Your task to perform on an android device: Go to battery settings Image 0: 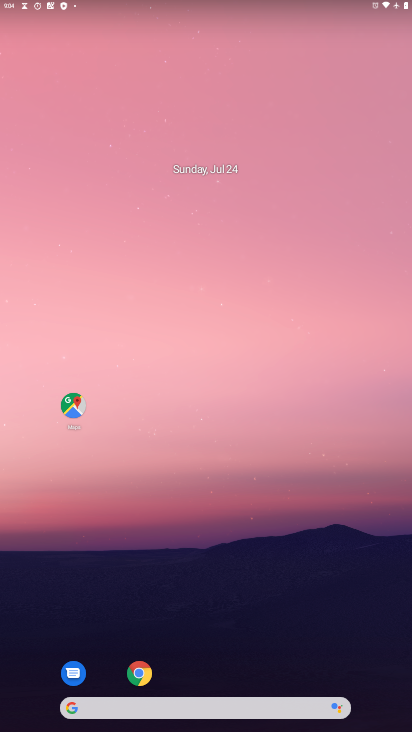
Step 0: drag from (207, 684) to (124, 14)
Your task to perform on an android device: Go to battery settings Image 1: 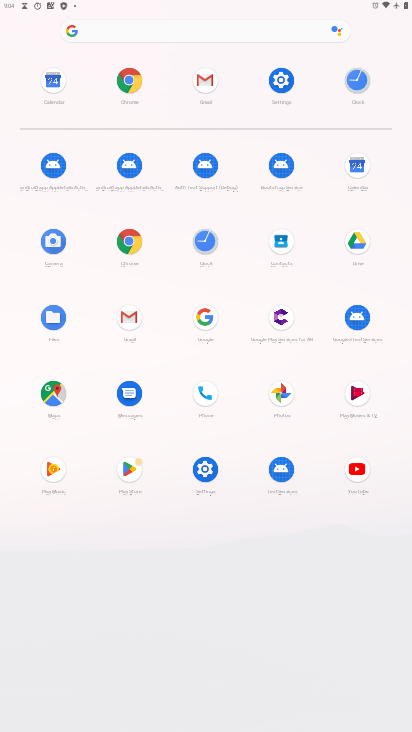
Step 1: click (273, 72)
Your task to perform on an android device: Go to battery settings Image 2: 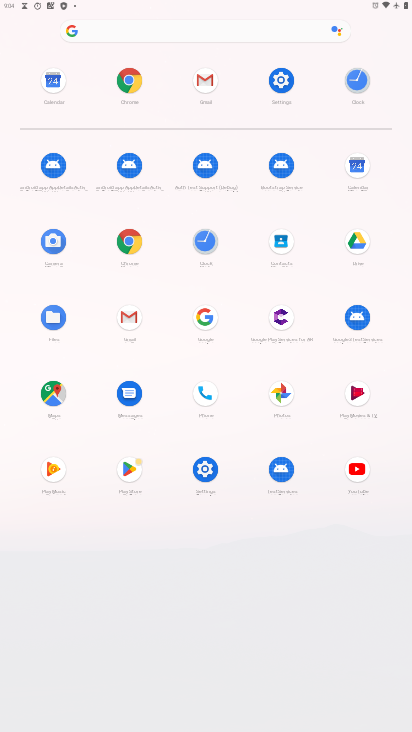
Step 2: click (273, 72)
Your task to perform on an android device: Go to battery settings Image 3: 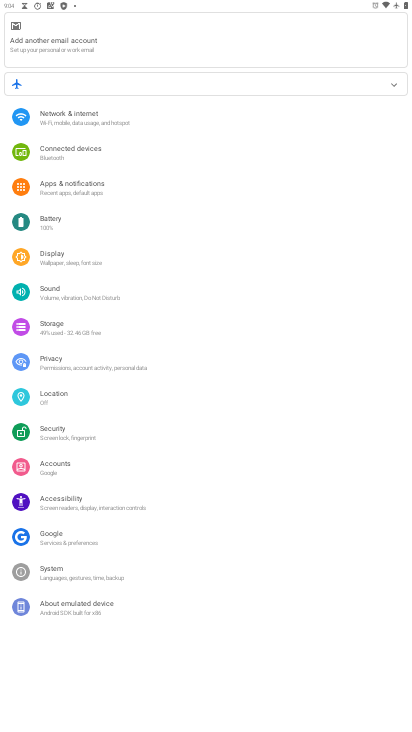
Step 3: click (64, 219)
Your task to perform on an android device: Go to battery settings Image 4: 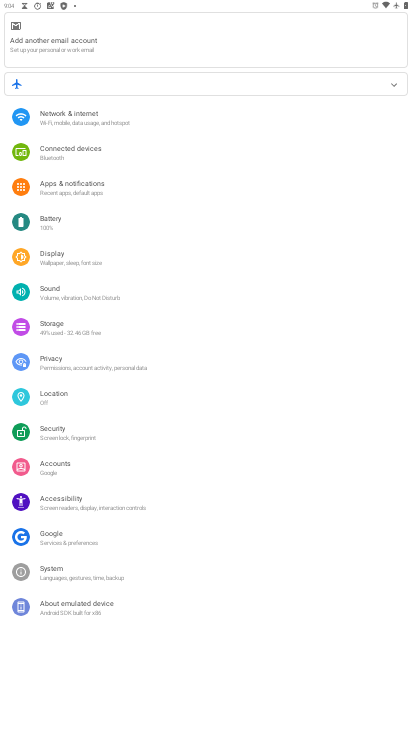
Step 4: click (64, 219)
Your task to perform on an android device: Go to battery settings Image 5: 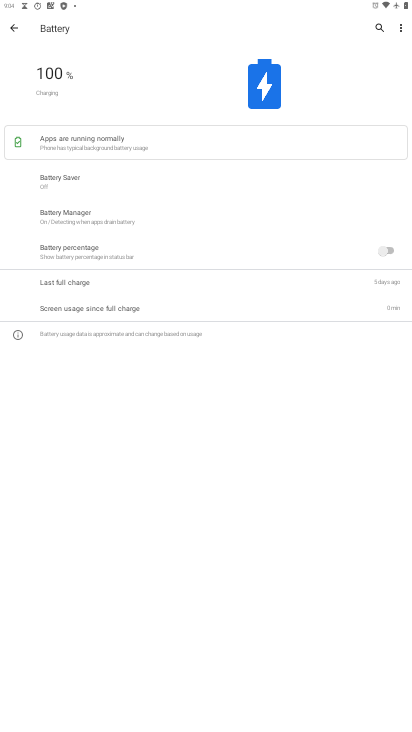
Step 5: task complete